Your task to perform on an android device: change the clock display to digital Image 0: 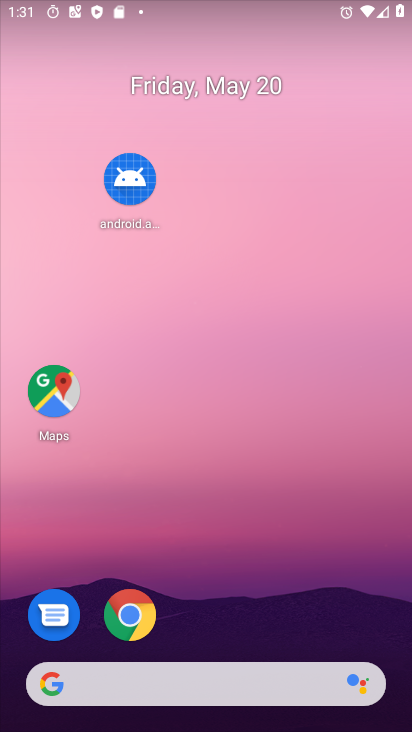
Step 0: drag from (265, 618) to (258, 194)
Your task to perform on an android device: change the clock display to digital Image 1: 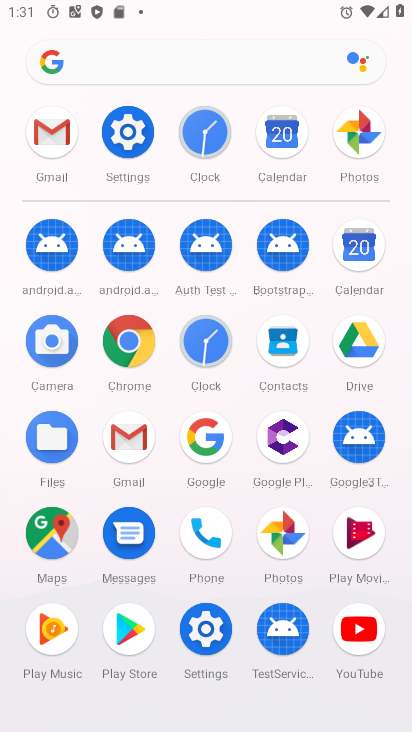
Step 1: click (190, 347)
Your task to perform on an android device: change the clock display to digital Image 2: 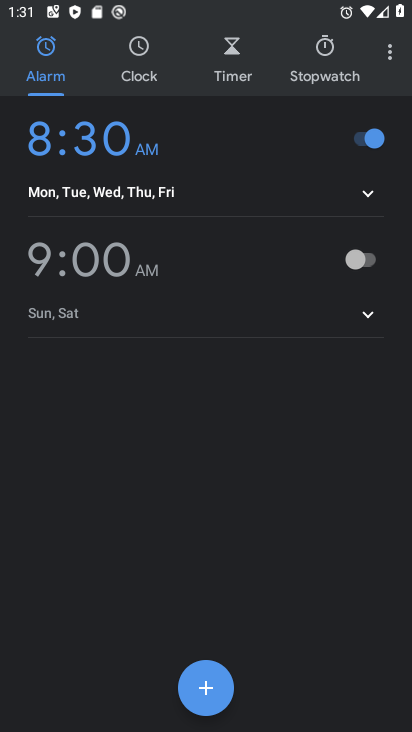
Step 2: click (393, 58)
Your task to perform on an android device: change the clock display to digital Image 3: 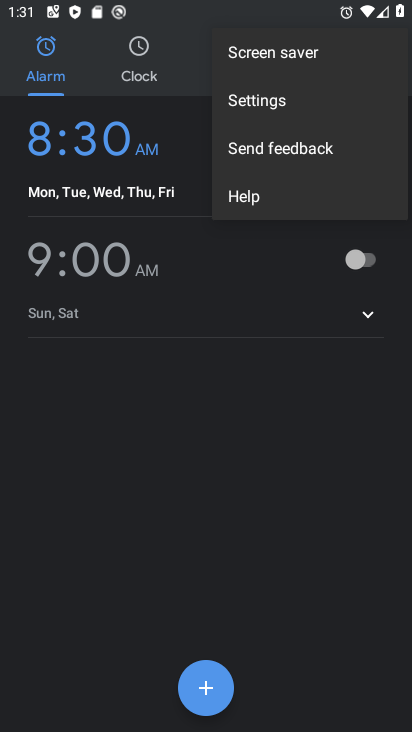
Step 3: click (259, 95)
Your task to perform on an android device: change the clock display to digital Image 4: 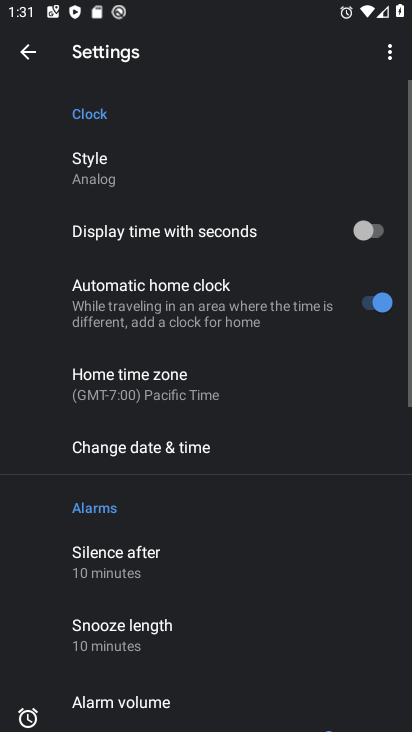
Step 4: click (235, 161)
Your task to perform on an android device: change the clock display to digital Image 5: 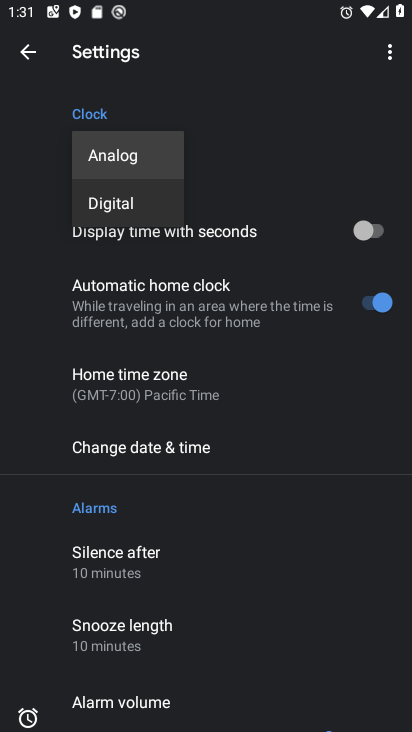
Step 5: click (150, 197)
Your task to perform on an android device: change the clock display to digital Image 6: 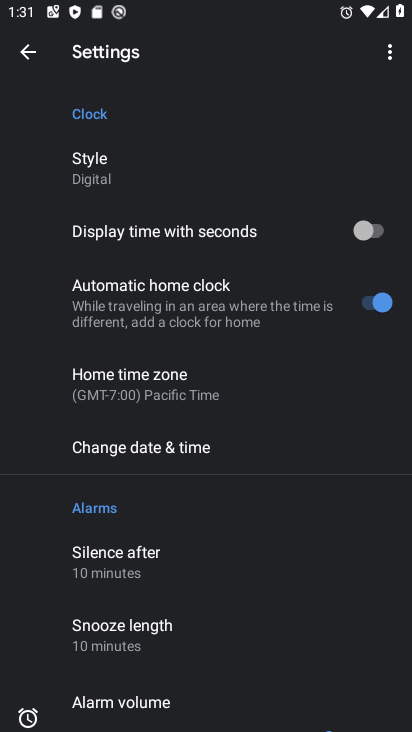
Step 6: task complete